Your task to perform on an android device: Search for vegetarian restaurants on Maps Image 0: 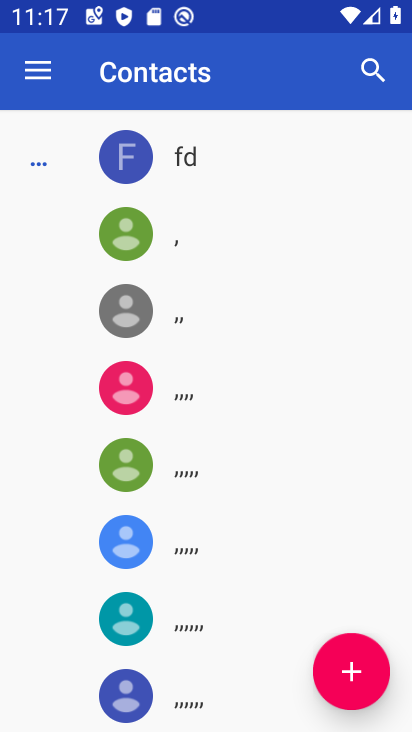
Step 0: press home button
Your task to perform on an android device: Search for vegetarian restaurants on Maps Image 1: 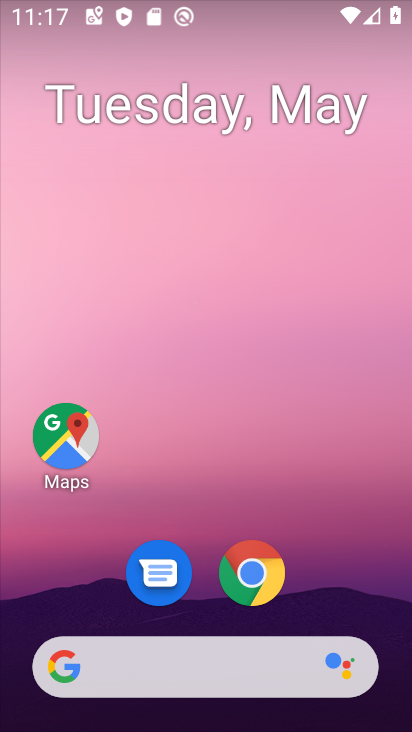
Step 1: click (71, 442)
Your task to perform on an android device: Search for vegetarian restaurants on Maps Image 2: 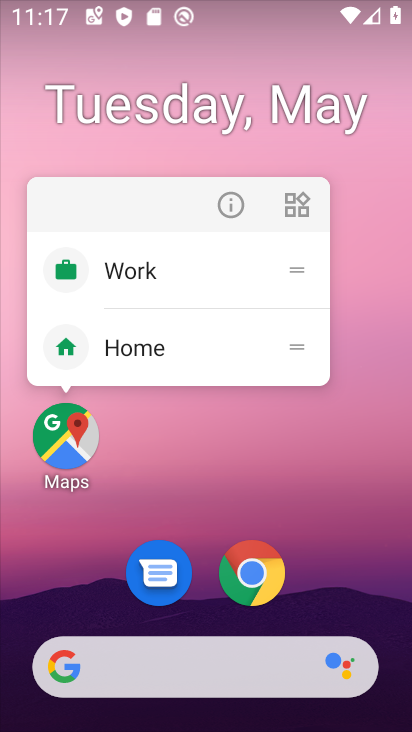
Step 2: click (69, 435)
Your task to perform on an android device: Search for vegetarian restaurants on Maps Image 3: 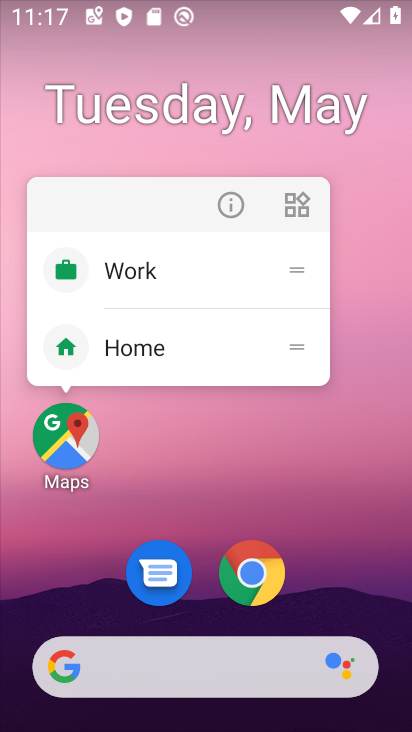
Step 3: click (69, 434)
Your task to perform on an android device: Search for vegetarian restaurants on Maps Image 4: 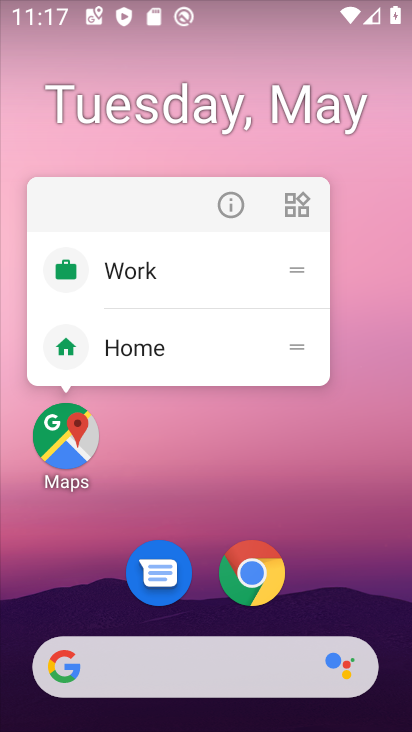
Step 4: click (68, 434)
Your task to perform on an android device: Search for vegetarian restaurants on Maps Image 5: 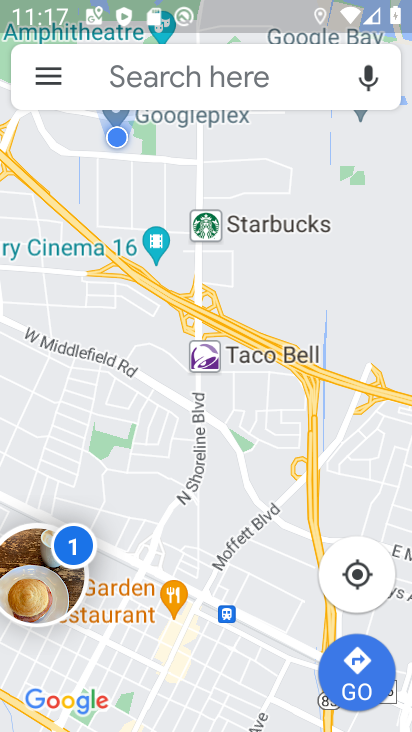
Step 5: click (202, 65)
Your task to perform on an android device: Search for vegetarian restaurants on Maps Image 6: 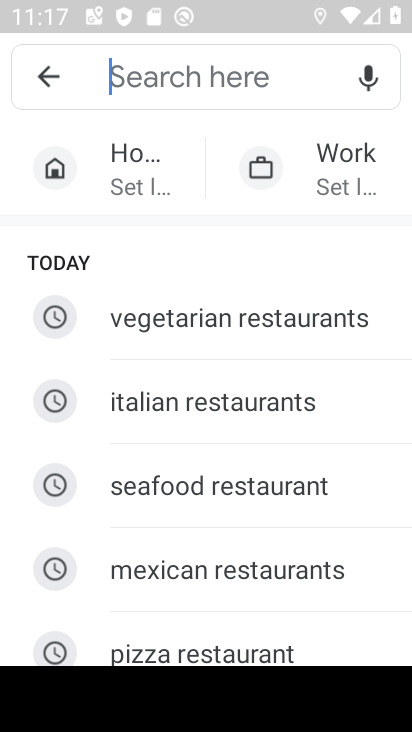
Step 6: click (247, 321)
Your task to perform on an android device: Search for vegetarian restaurants on Maps Image 7: 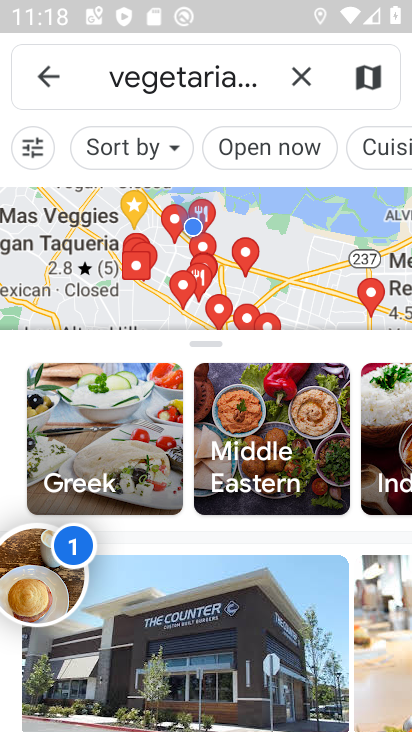
Step 7: task complete